Your task to perform on an android device: turn on javascript in the chrome app Image 0: 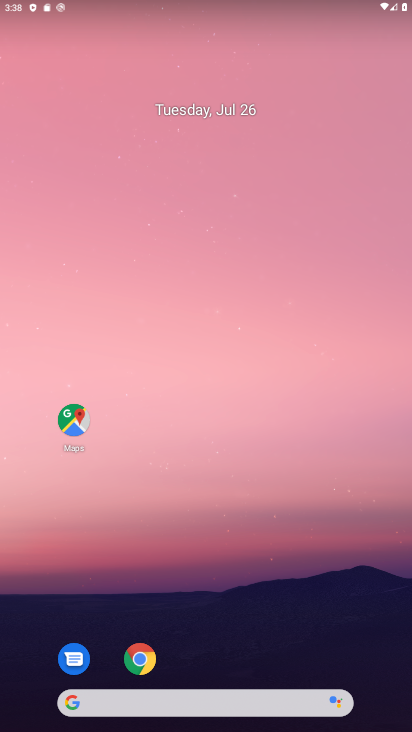
Step 0: drag from (225, 647) to (331, 34)
Your task to perform on an android device: turn on javascript in the chrome app Image 1: 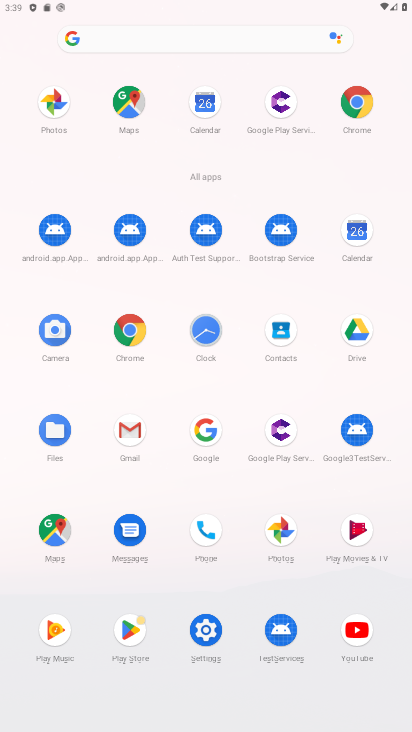
Step 1: click (356, 116)
Your task to perform on an android device: turn on javascript in the chrome app Image 2: 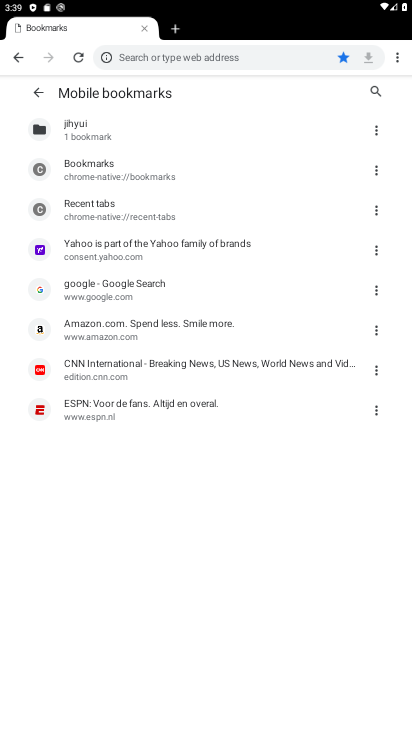
Step 2: drag from (399, 65) to (276, 262)
Your task to perform on an android device: turn on javascript in the chrome app Image 3: 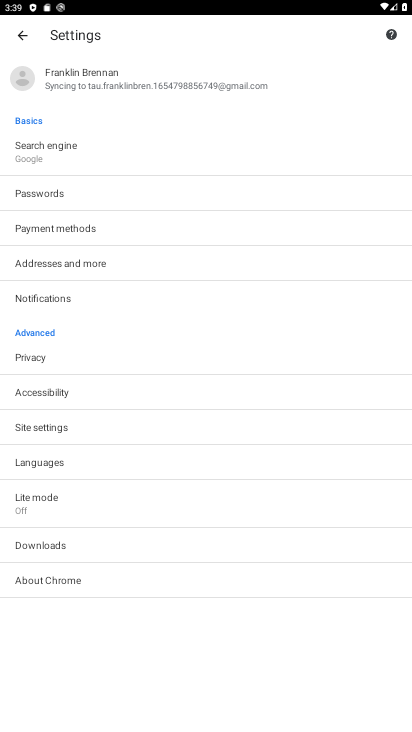
Step 3: click (77, 426)
Your task to perform on an android device: turn on javascript in the chrome app Image 4: 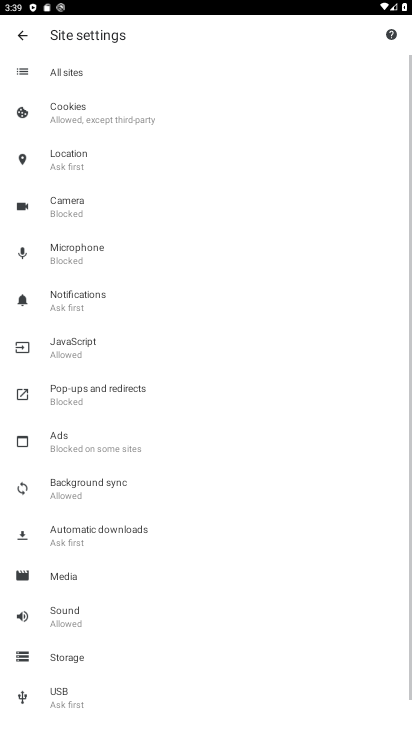
Step 4: click (45, 348)
Your task to perform on an android device: turn on javascript in the chrome app Image 5: 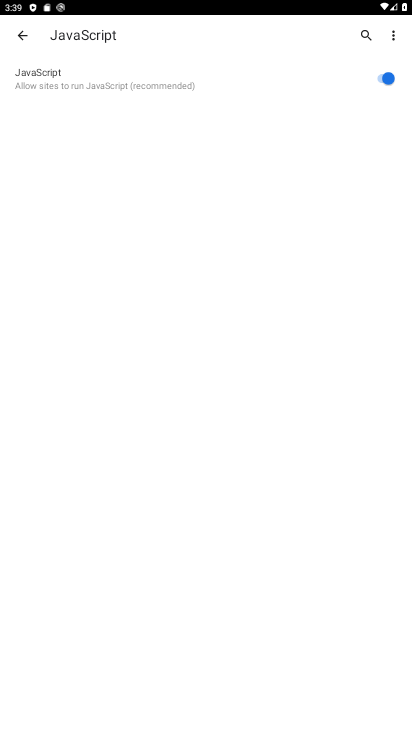
Step 5: task complete